Your task to perform on an android device: Open settings on Google Maps Image 0: 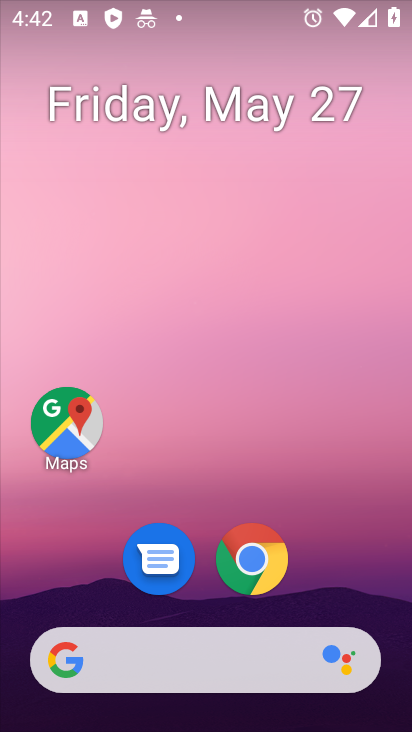
Step 0: drag from (267, 572) to (308, 42)
Your task to perform on an android device: Open settings on Google Maps Image 1: 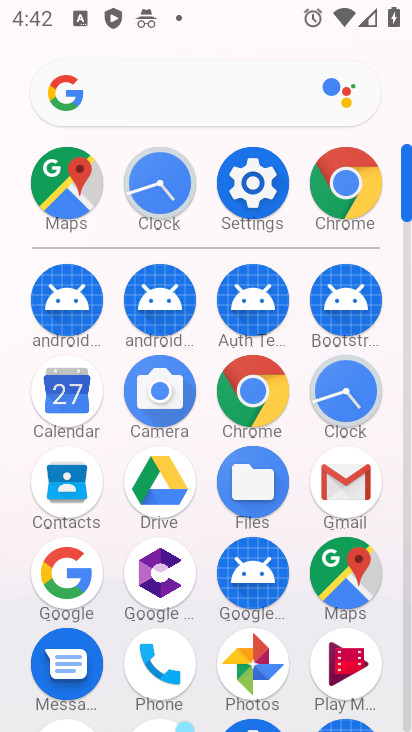
Step 1: click (357, 567)
Your task to perform on an android device: Open settings on Google Maps Image 2: 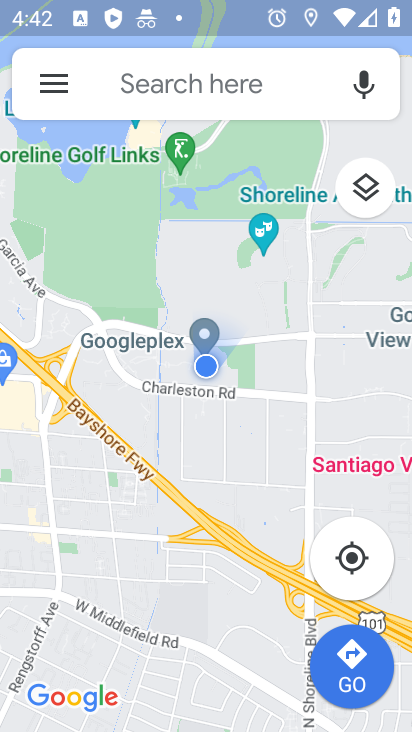
Step 2: click (51, 83)
Your task to perform on an android device: Open settings on Google Maps Image 3: 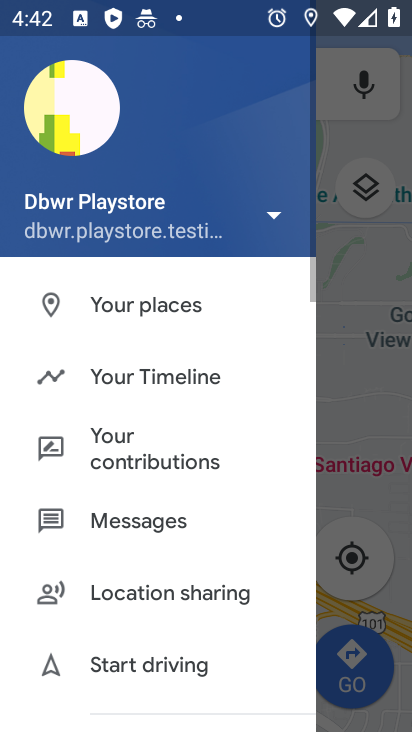
Step 3: click (161, 382)
Your task to perform on an android device: Open settings on Google Maps Image 4: 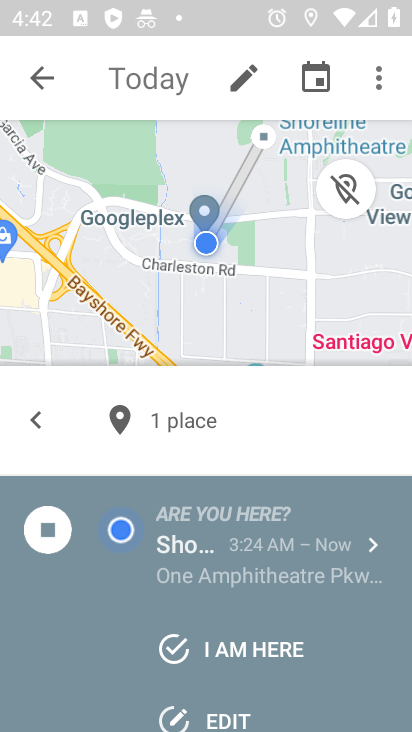
Step 4: click (375, 84)
Your task to perform on an android device: Open settings on Google Maps Image 5: 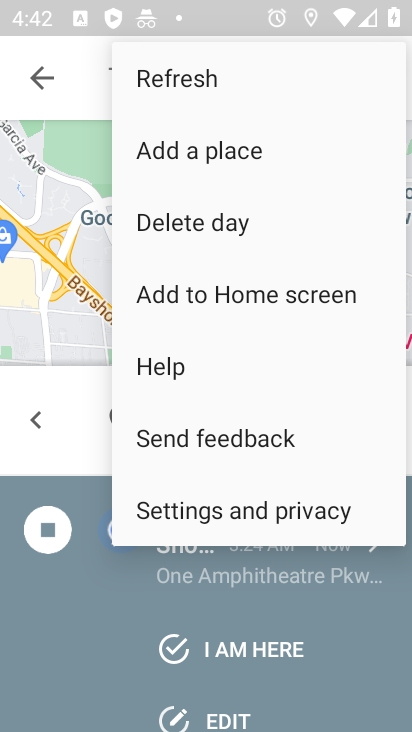
Step 5: click (239, 525)
Your task to perform on an android device: Open settings on Google Maps Image 6: 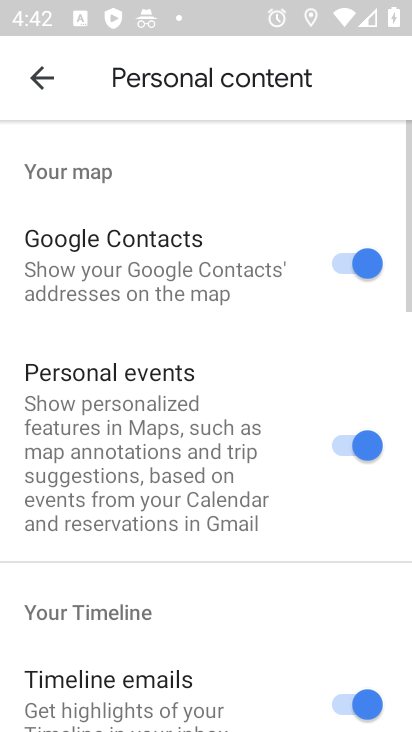
Step 6: task complete